Your task to perform on an android device: open app "Microsoft Outlook" (install if not already installed) Image 0: 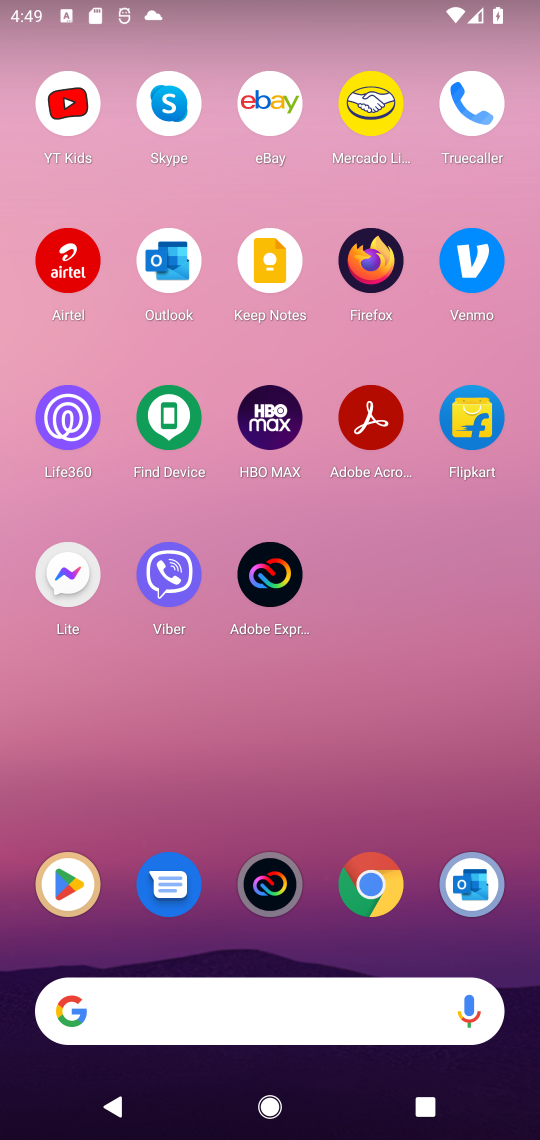
Step 0: click (47, 882)
Your task to perform on an android device: open app "Microsoft Outlook" (install if not already installed) Image 1: 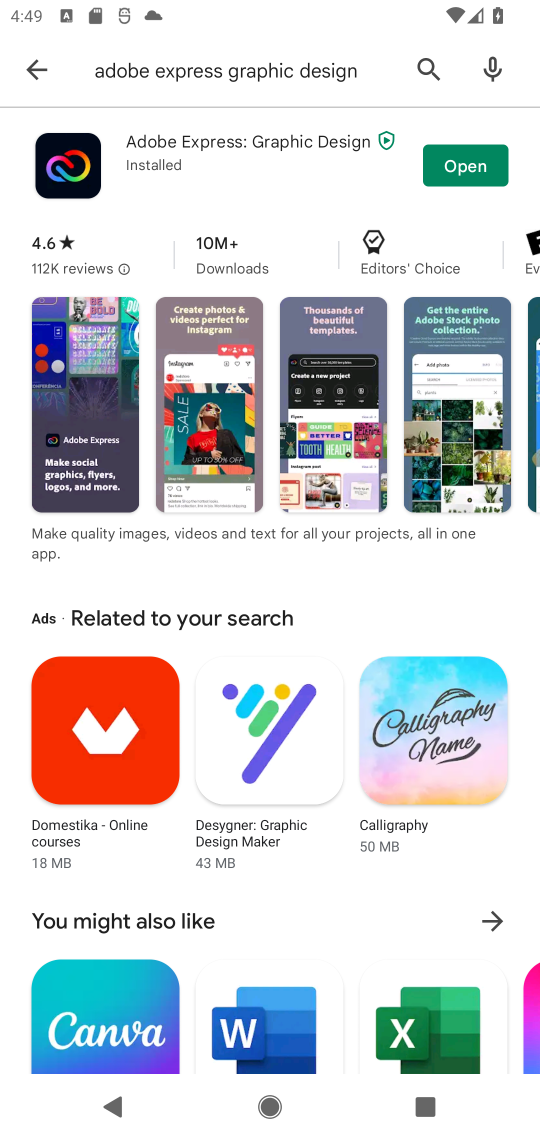
Step 1: click (35, 73)
Your task to perform on an android device: open app "Microsoft Outlook" (install if not already installed) Image 2: 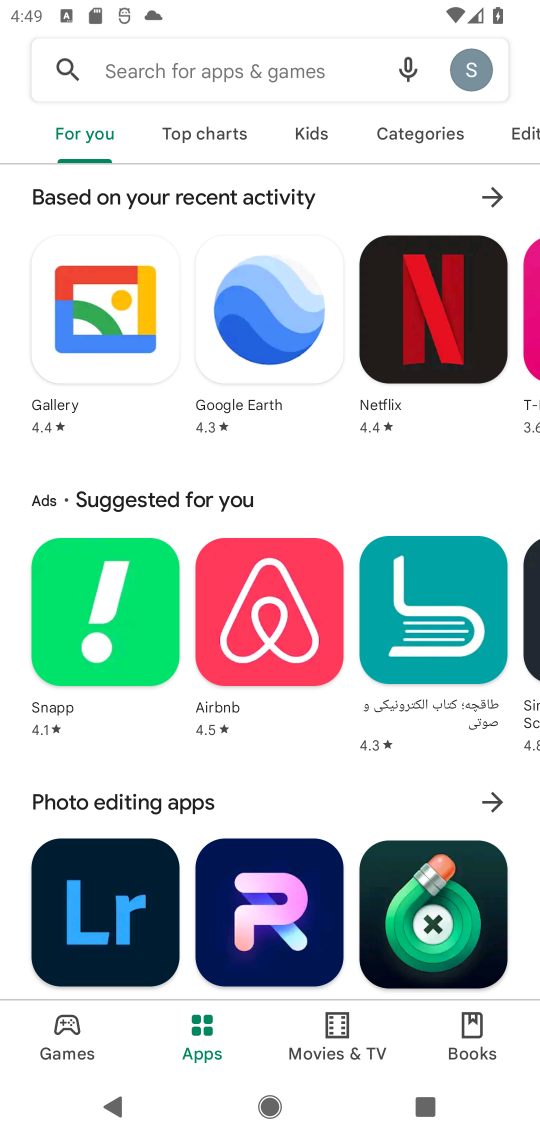
Step 2: click (252, 73)
Your task to perform on an android device: open app "Microsoft Outlook" (install if not already installed) Image 3: 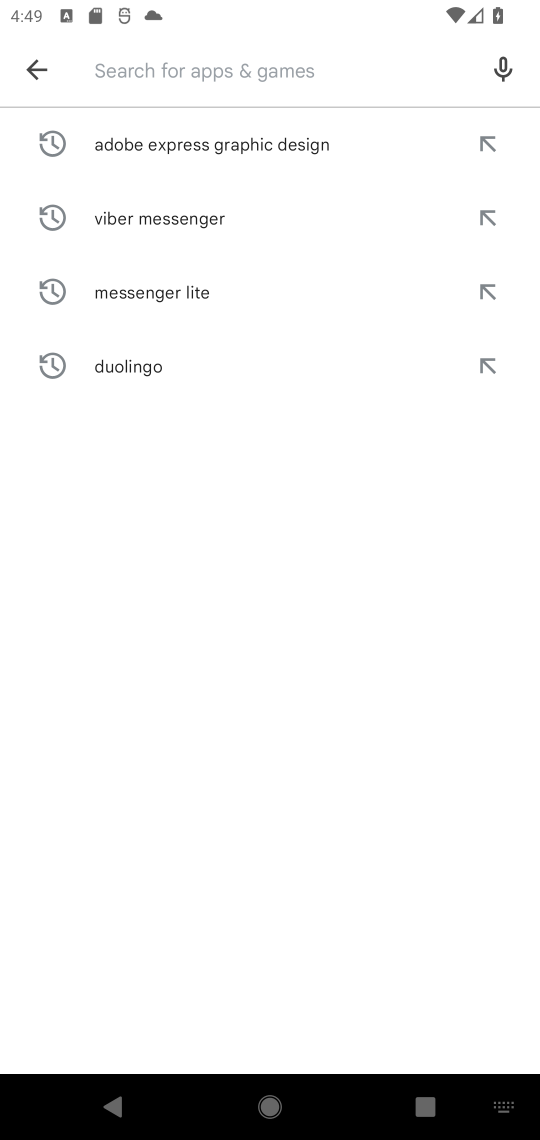
Step 3: type "Microsoft Outlook"
Your task to perform on an android device: open app "Microsoft Outlook" (install if not already installed) Image 4: 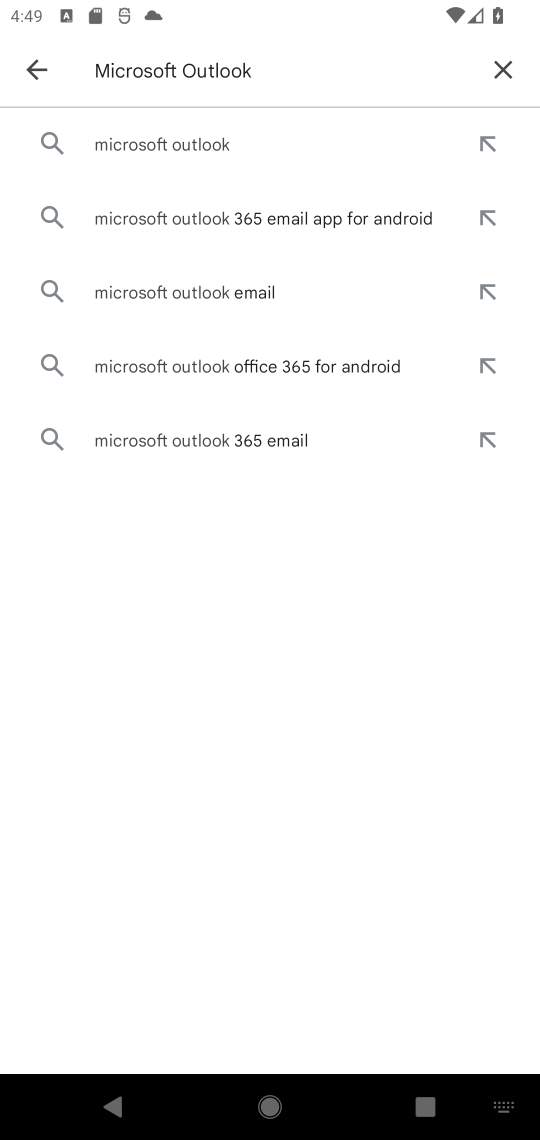
Step 4: click (153, 144)
Your task to perform on an android device: open app "Microsoft Outlook" (install if not already installed) Image 5: 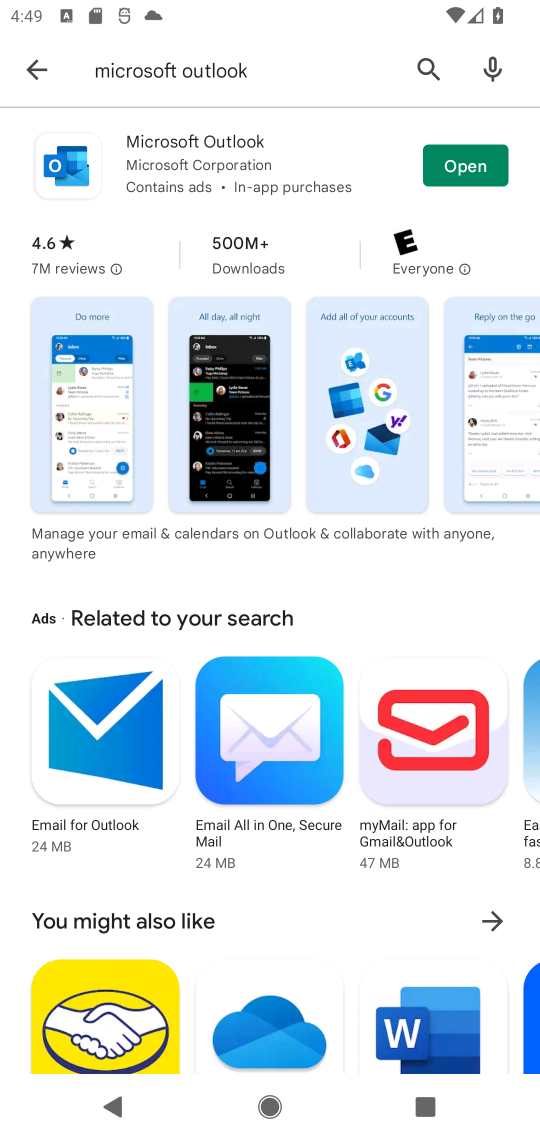
Step 5: click (492, 155)
Your task to perform on an android device: open app "Microsoft Outlook" (install if not already installed) Image 6: 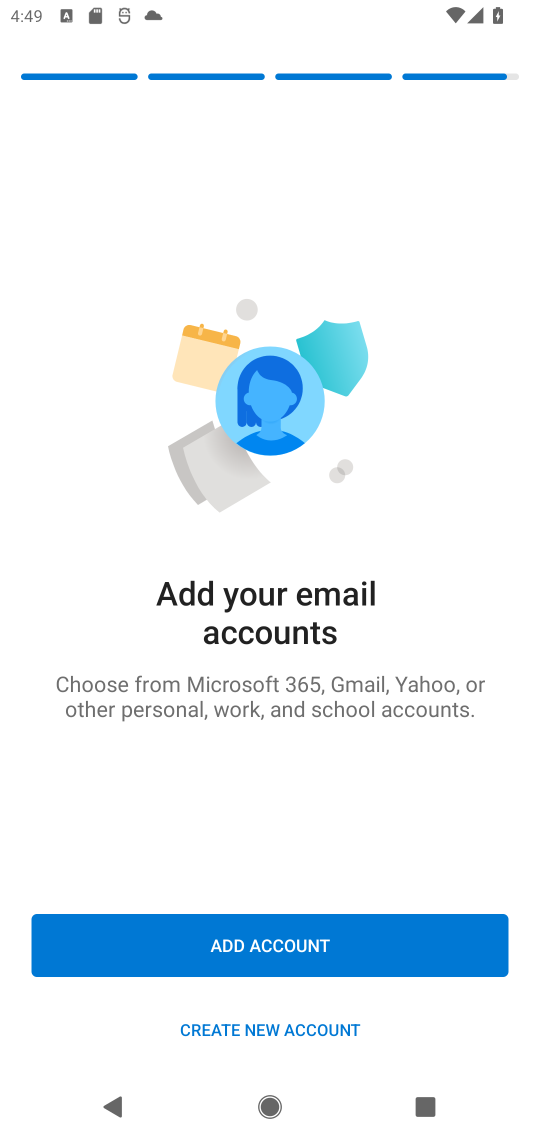
Step 6: task complete